Your task to perform on an android device: Open calendar and show me the third week of next month Image 0: 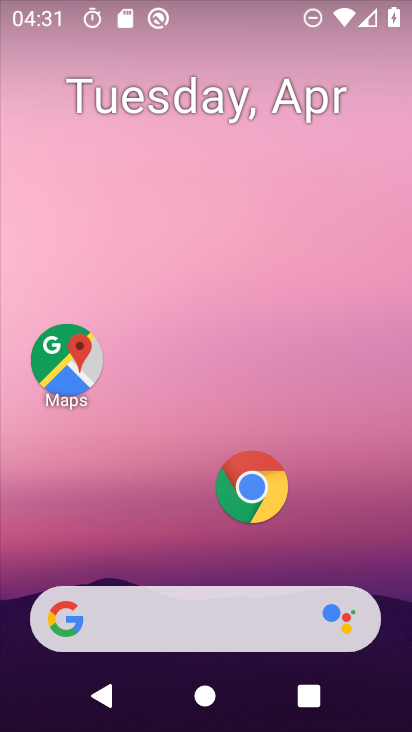
Step 0: drag from (196, 449) to (292, 15)
Your task to perform on an android device: Open calendar and show me the third week of next month Image 1: 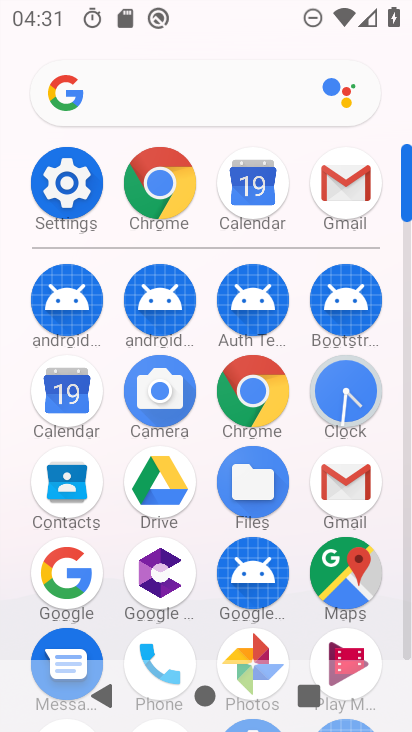
Step 1: click (75, 391)
Your task to perform on an android device: Open calendar and show me the third week of next month Image 2: 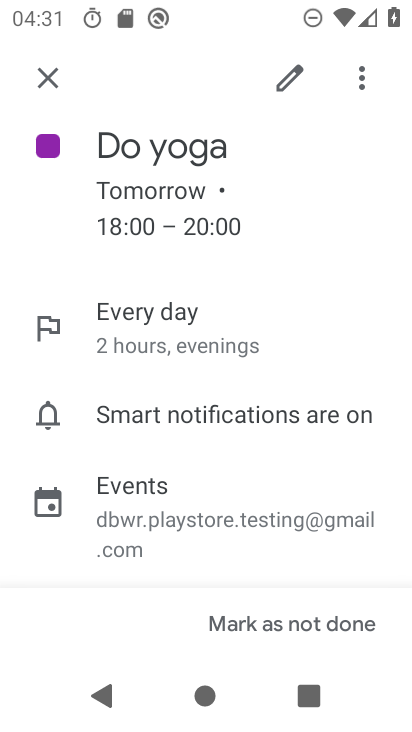
Step 2: click (45, 77)
Your task to perform on an android device: Open calendar and show me the third week of next month Image 3: 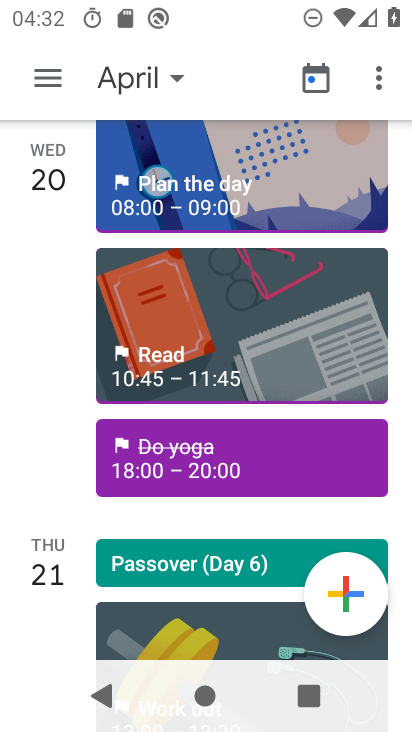
Step 3: click (139, 74)
Your task to perform on an android device: Open calendar and show me the third week of next month Image 4: 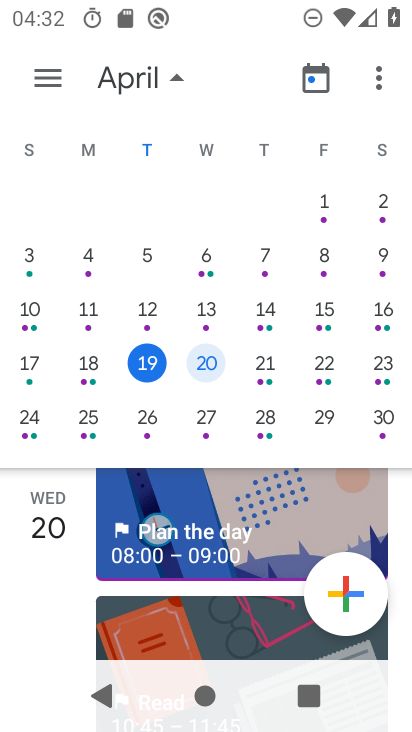
Step 4: drag from (342, 297) to (83, 256)
Your task to perform on an android device: Open calendar and show me the third week of next month Image 5: 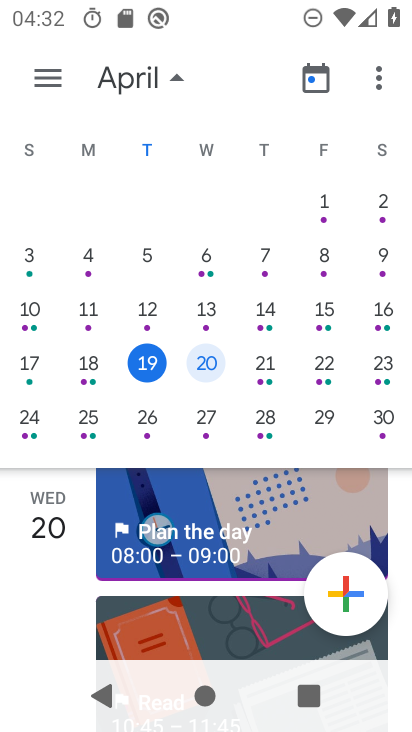
Step 5: drag from (353, 345) to (48, 293)
Your task to perform on an android device: Open calendar and show me the third week of next month Image 6: 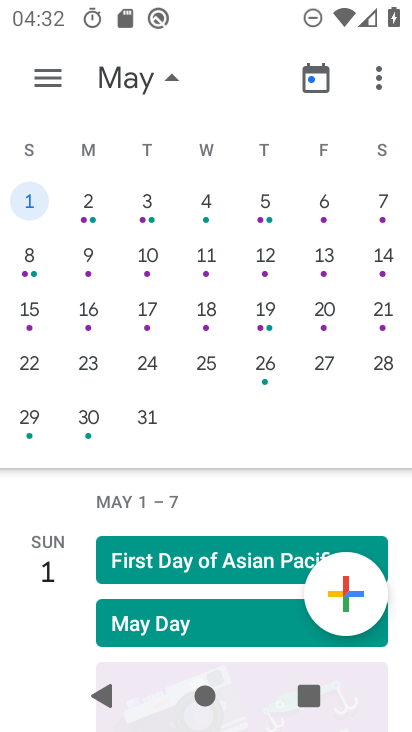
Step 6: click (93, 310)
Your task to perform on an android device: Open calendar and show me the third week of next month Image 7: 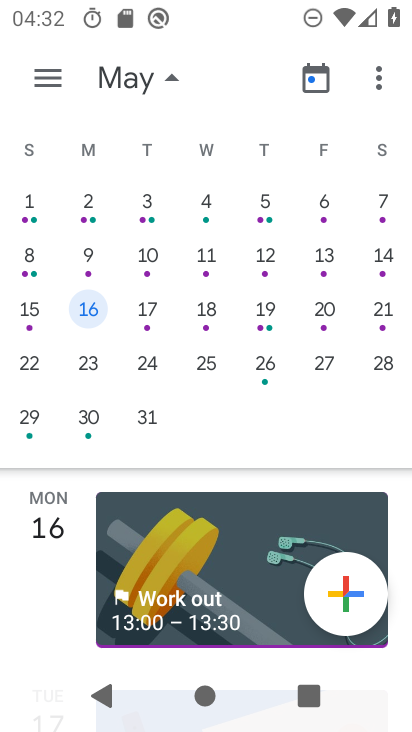
Step 7: task complete